Your task to perform on an android device: install app "Flipkart Online Shopping App" Image 0: 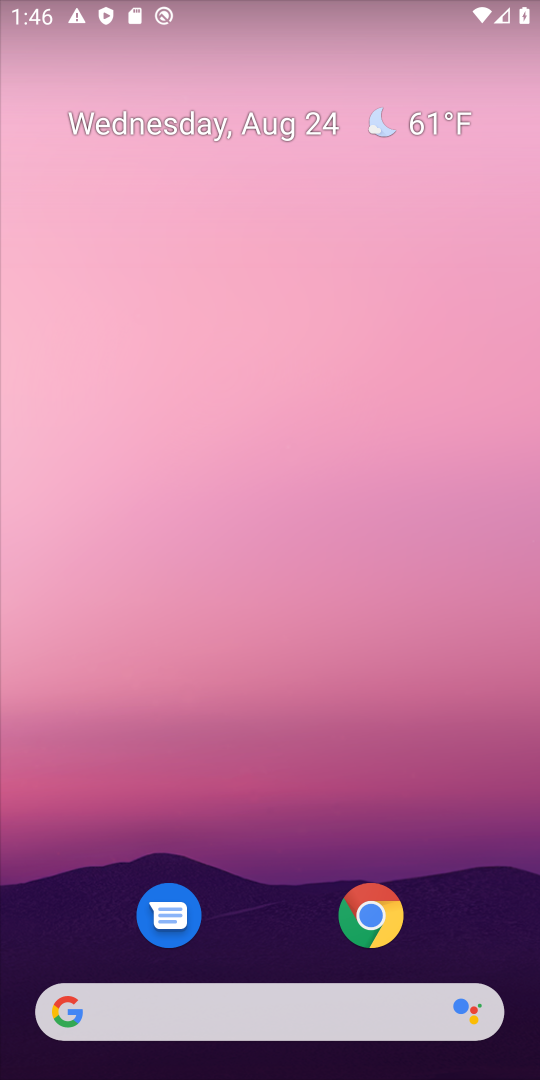
Step 0: drag from (275, 879) to (286, 143)
Your task to perform on an android device: install app "Flipkart Online Shopping App" Image 1: 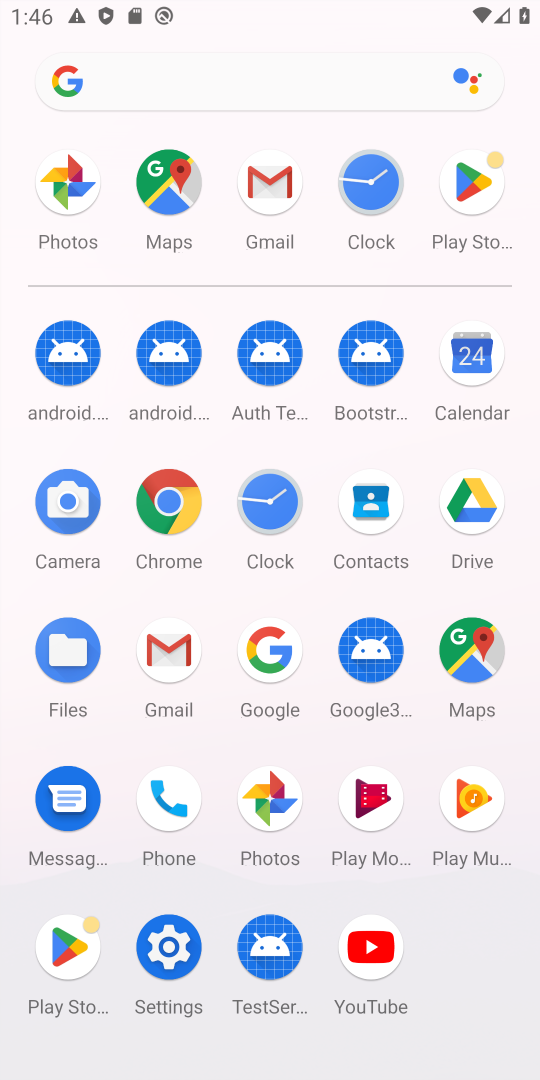
Step 1: click (445, 197)
Your task to perform on an android device: install app "Flipkart Online Shopping App" Image 2: 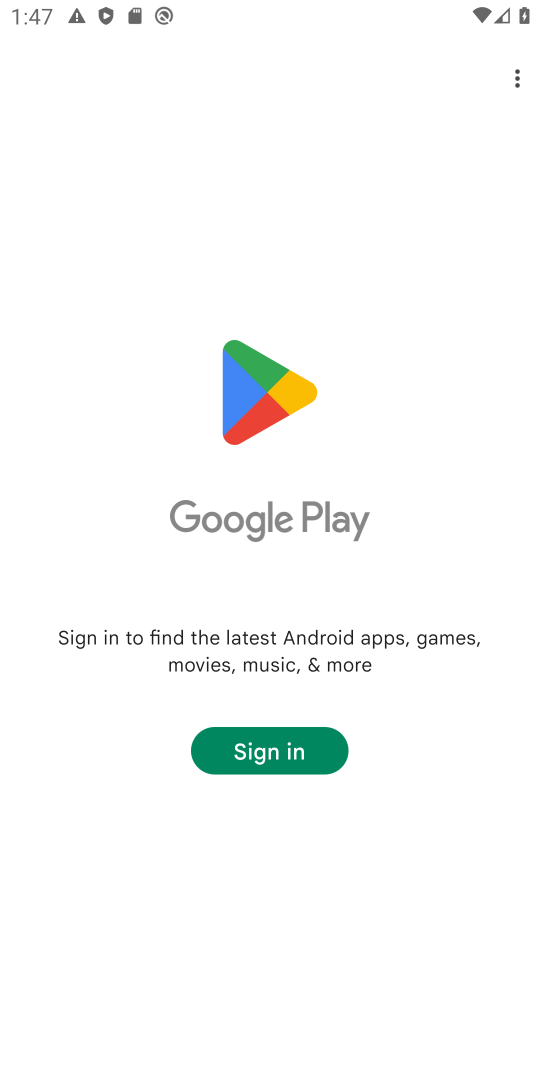
Step 2: task complete